Your task to perform on an android device: Show the shopping cart on costco. Add jbl charge 4 to the cart on costco, then select checkout. Image 0: 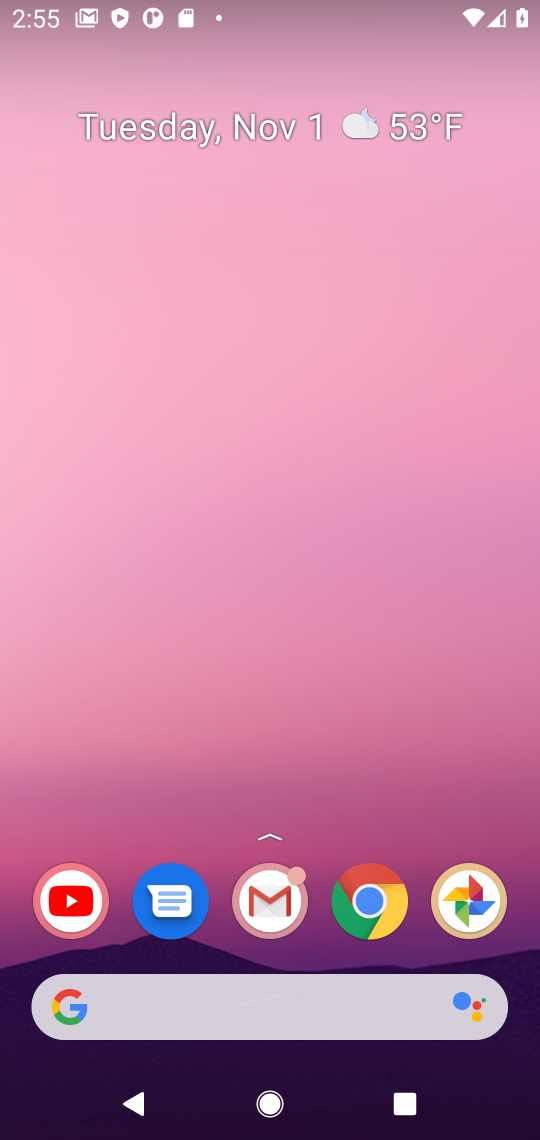
Step 0: click (350, 922)
Your task to perform on an android device: Show the shopping cart on costco. Add jbl charge 4 to the cart on costco, then select checkout. Image 1: 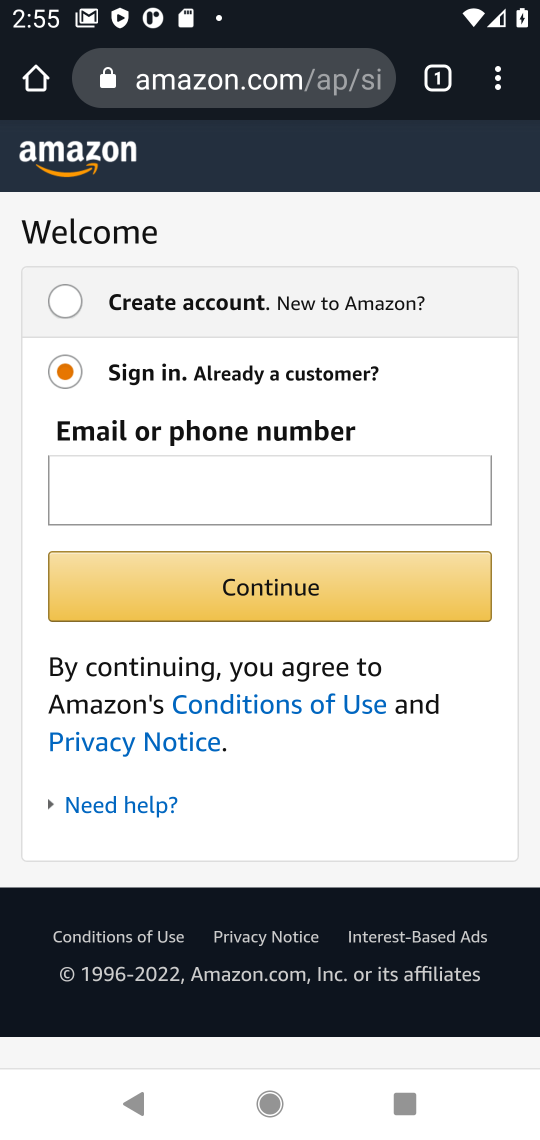
Step 1: click (236, 69)
Your task to perform on an android device: Show the shopping cart on costco. Add jbl charge 4 to the cart on costco, then select checkout. Image 2: 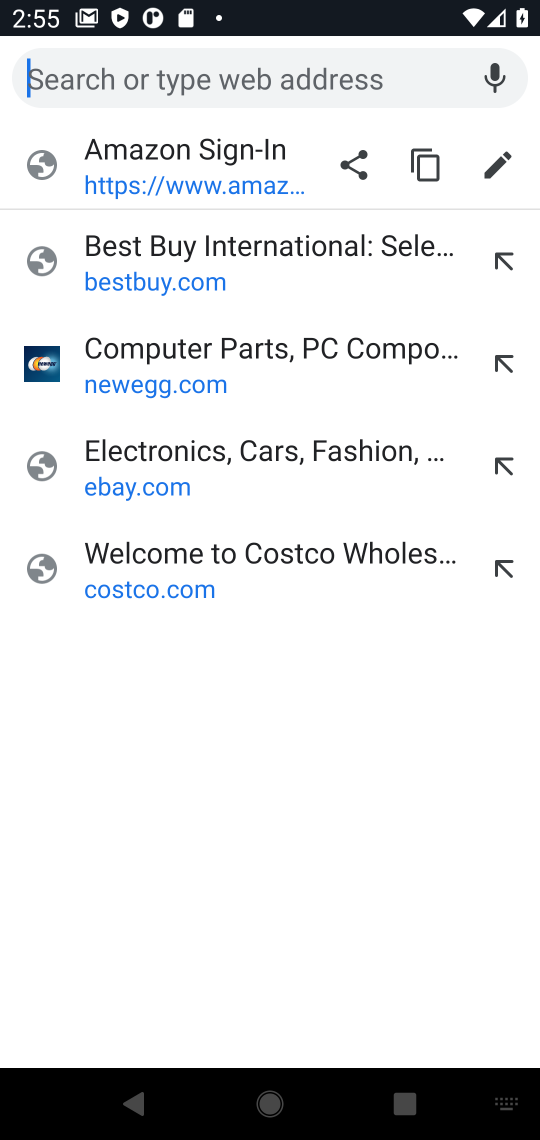
Step 2: type "costco"
Your task to perform on an android device: Show the shopping cart on costco. Add jbl charge 4 to the cart on costco, then select checkout. Image 3: 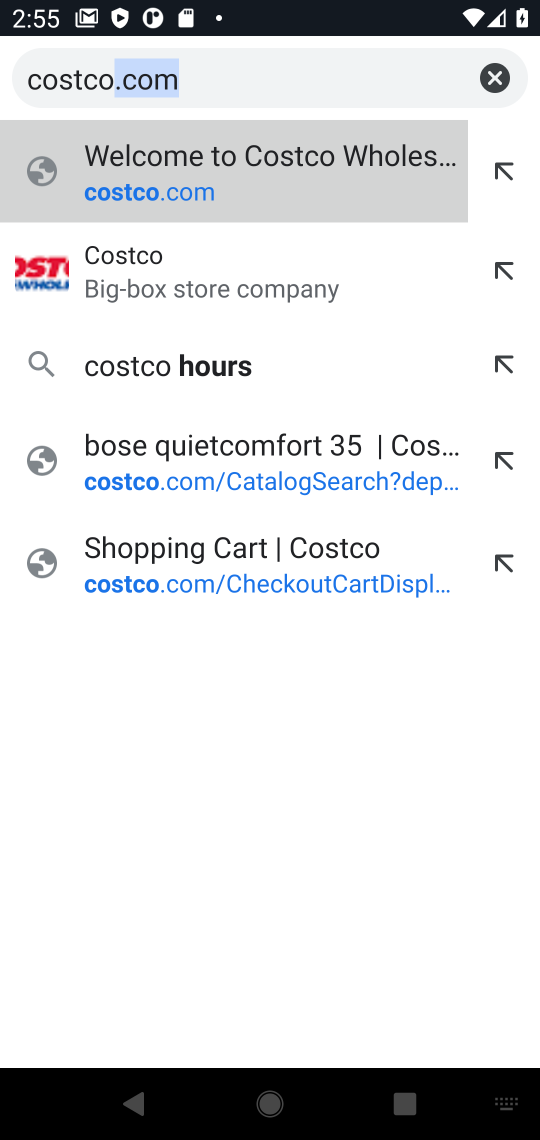
Step 3: click (238, 176)
Your task to perform on an android device: Show the shopping cart on costco. Add jbl charge 4 to the cart on costco, then select checkout. Image 4: 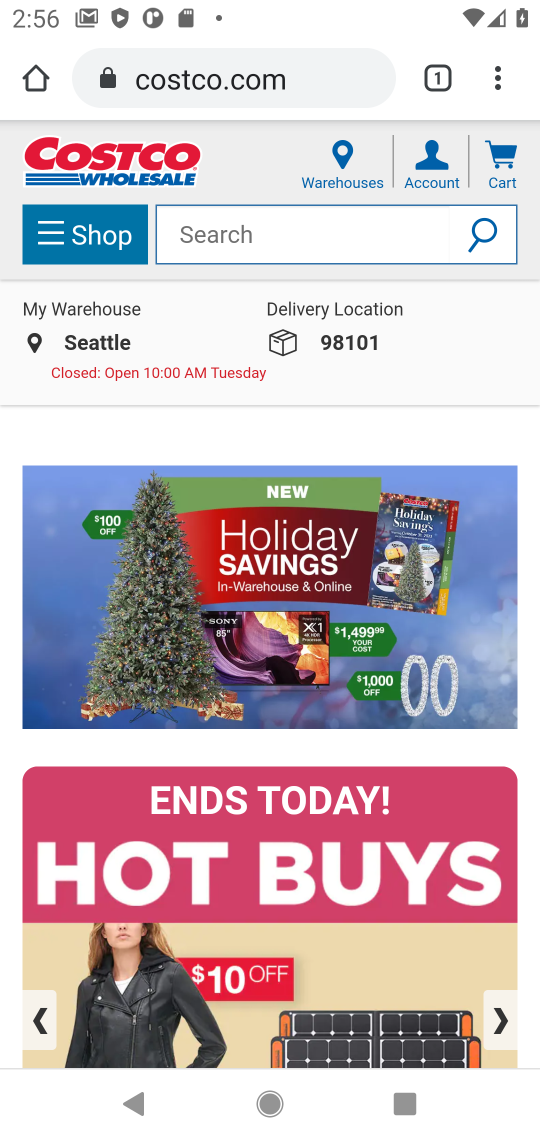
Step 4: click (504, 158)
Your task to perform on an android device: Show the shopping cart on costco. Add jbl charge 4 to the cart on costco, then select checkout. Image 5: 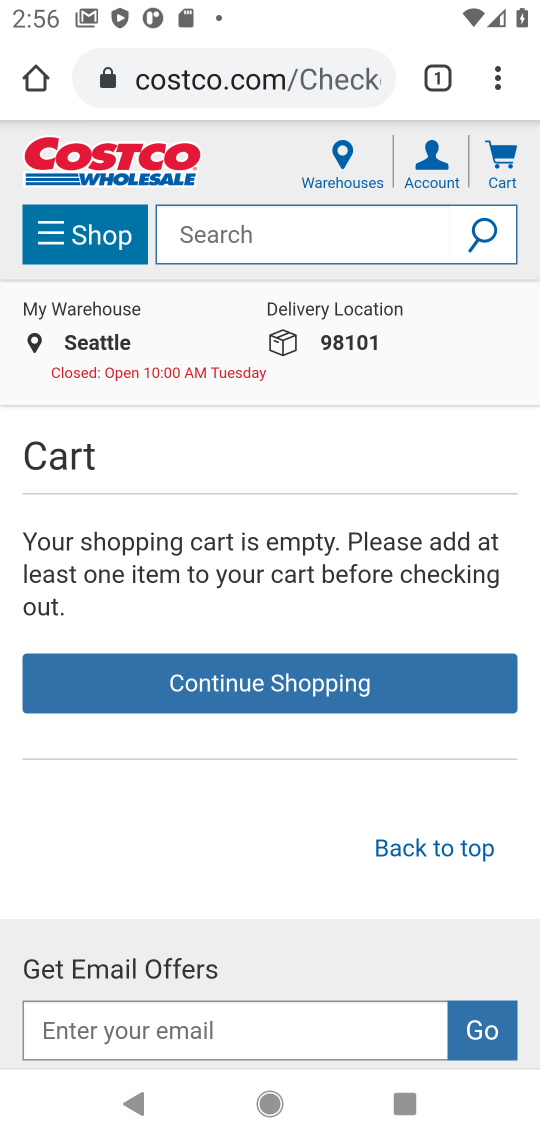
Step 5: click (313, 232)
Your task to perform on an android device: Show the shopping cart on costco. Add jbl charge 4 to the cart on costco, then select checkout. Image 6: 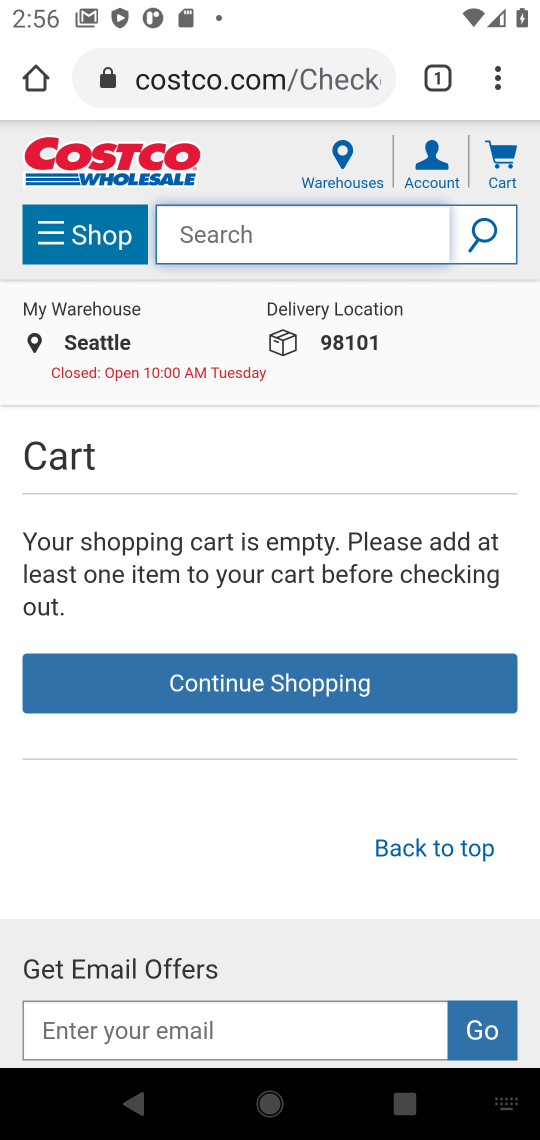
Step 6: type "jbl charger 4"
Your task to perform on an android device: Show the shopping cart on costco. Add jbl charge 4 to the cart on costco, then select checkout. Image 7: 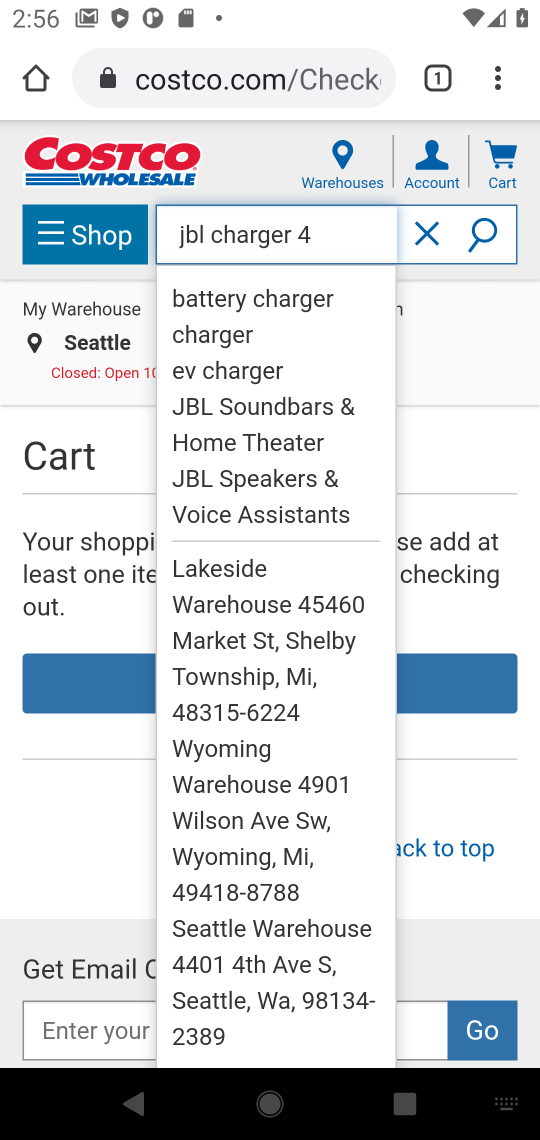
Step 7: press enter
Your task to perform on an android device: Show the shopping cart on costco. Add jbl charge 4 to the cart on costco, then select checkout. Image 8: 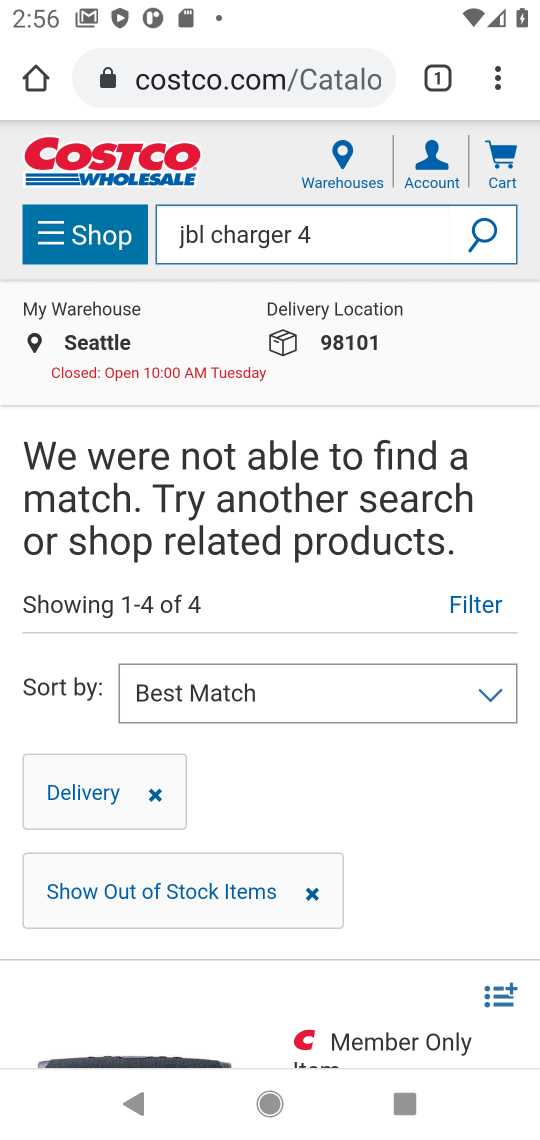
Step 8: task complete